Your task to perform on an android device: Open Google Chrome and open the bookmarks view Image 0: 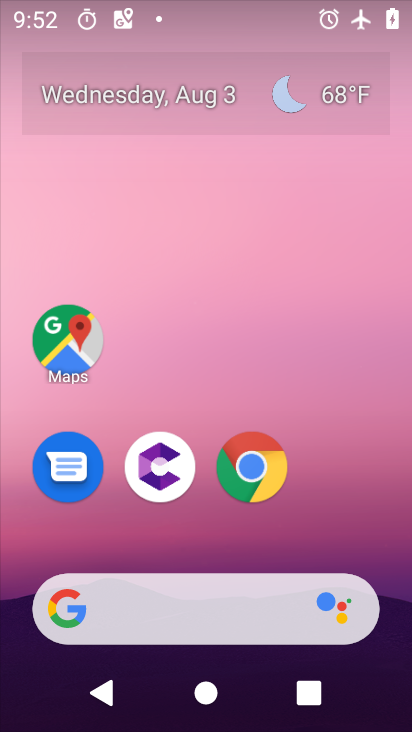
Step 0: drag from (365, 489) to (324, 117)
Your task to perform on an android device: Open Google Chrome and open the bookmarks view Image 1: 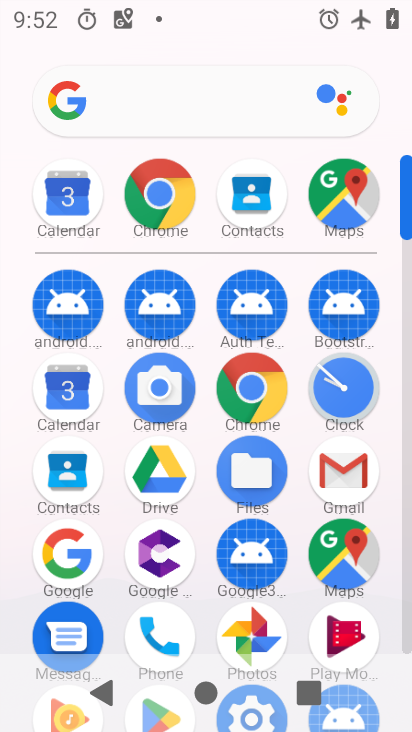
Step 1: click (257, 390)
Your task to perform on an android device: Open Google Chrome and open the bookmarks view Image 2: 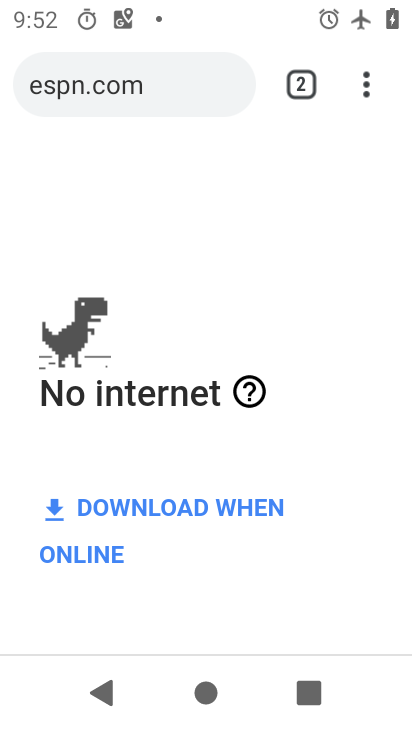
Step 2: task complete